Your task to perform on an android device: turn off notifications in google photos Image 0: 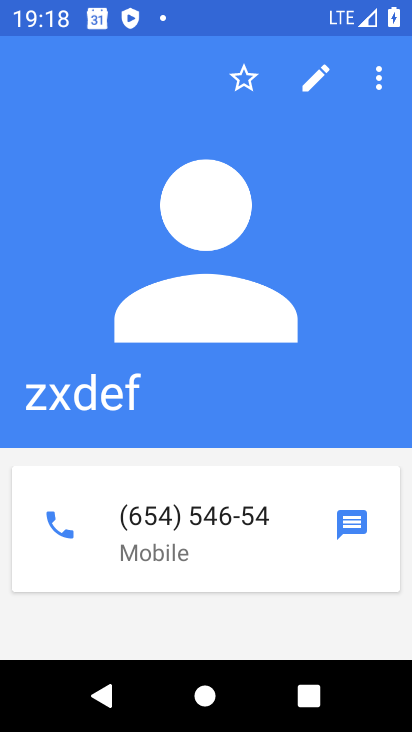
Step 0: press home button
Your task to perform on an android device: turn off notifications in google photos Image 1: 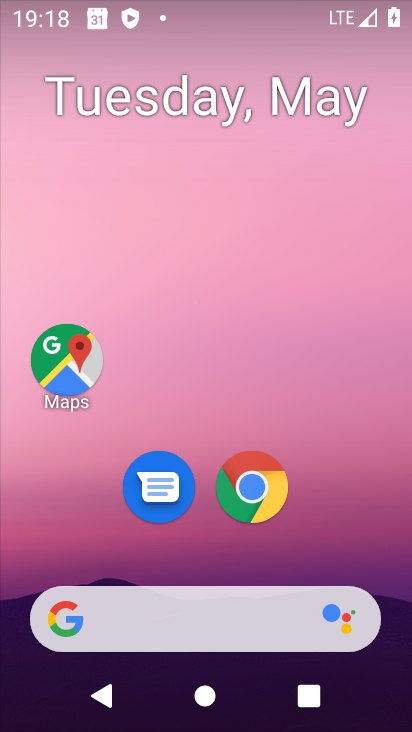
Step 1: drag from (346, 509) to (275, 144)
Your task to perform on an android device: turn off notifications in google photos Image 2: 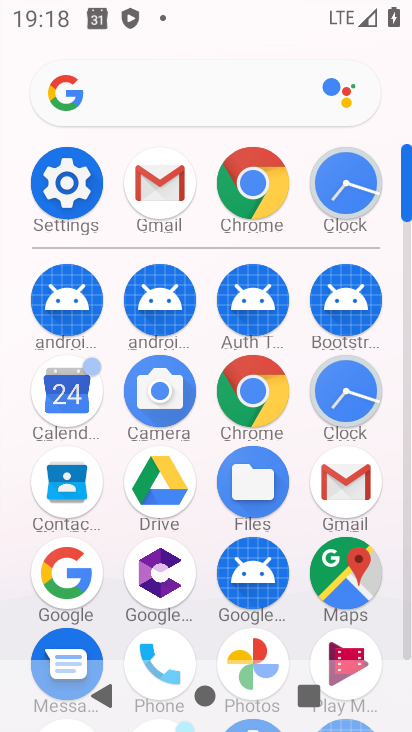
Step 2: click (251, 645)
Your task to perform on an android device: turn off notifications in google photos Image 3: 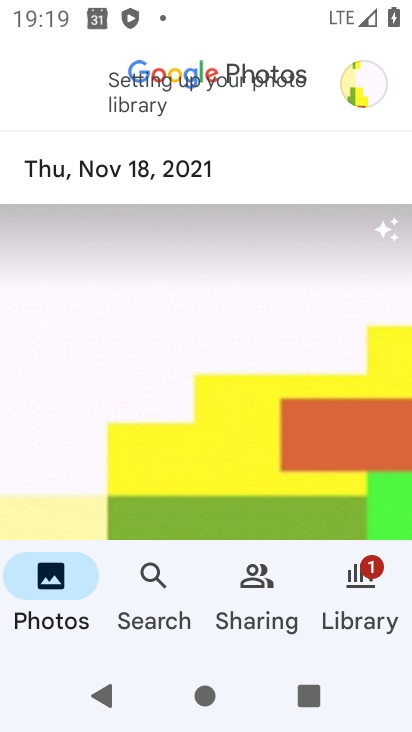
Step 3: click (363, 576)
Your task to perform on an android device: turn off notifications in google photos Image 4: 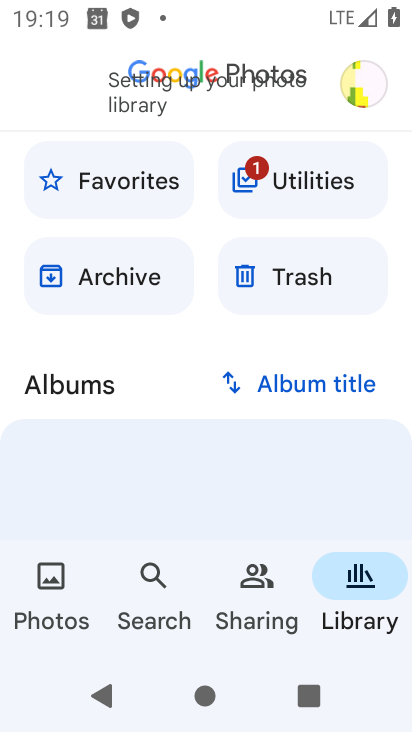
Step 4: click (363, 576)
Your task to perform on an android device: turn off notifications in google photos Image 5: 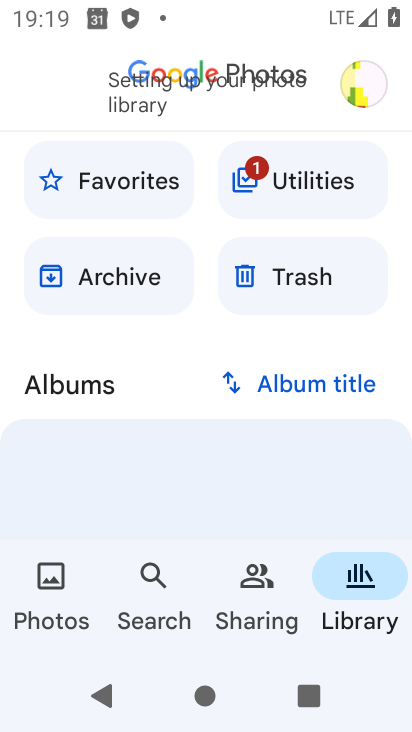
Step 5: click (52, 592)
Your task to perform on an android device: turn off notifications in google photos Image 6: 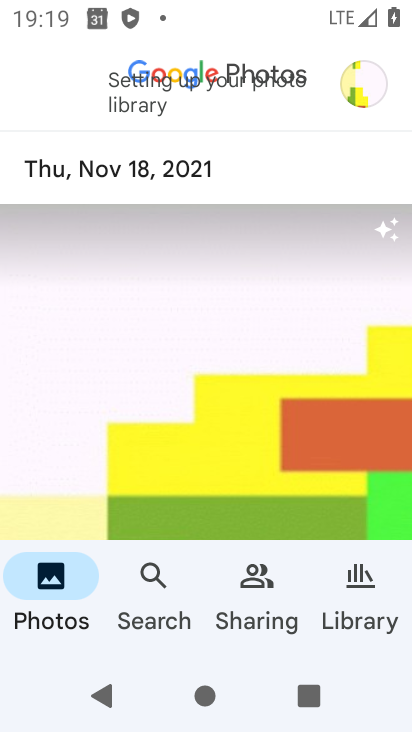
Step 6: click (355, 75)
Your task to perform on an android device: turn off notifications in google photos Image 7: 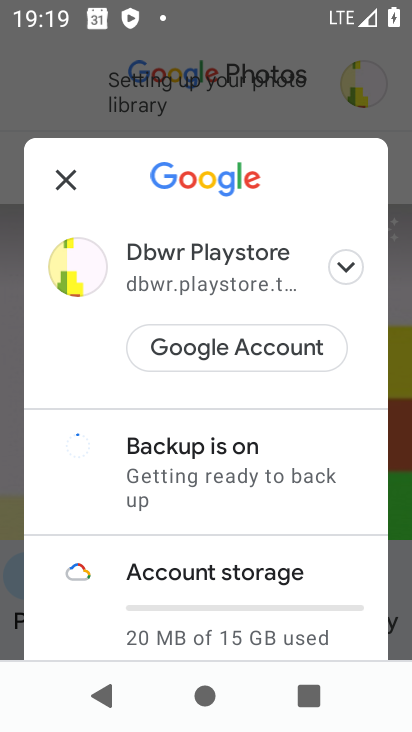
Step 7: drag from (263, 520) to (197, 254)
Your task to perform on an android device: turn off notifications in google photos Image 8: 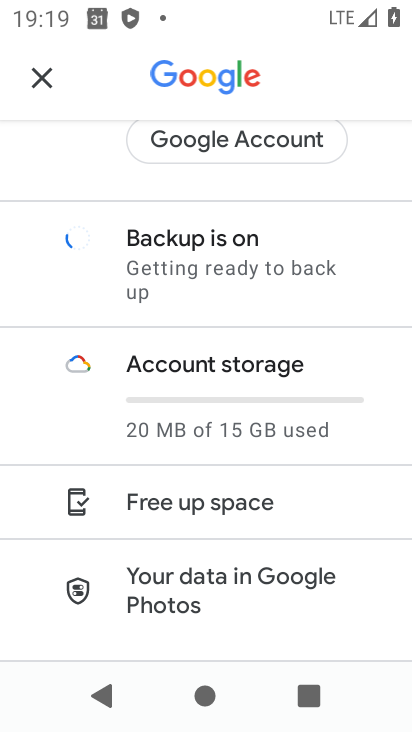
Step 8: drag from (270, 525) to (216, 278)
Your task to perform on an android device: turn off notifications in google photos Image 9: 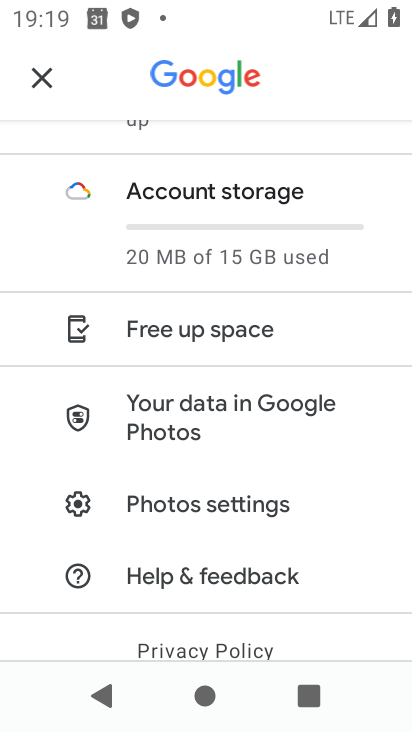
Step 9: click (236, 496)
Your task to perform on an android device: turn off notifications in google photos Image 10: 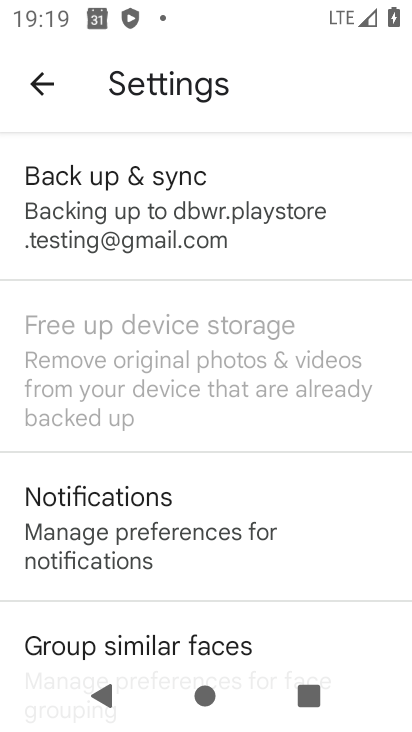
Step 10: click (141, 511)
Your task to perform on an android device: turn off notifications in google photos Image 11: 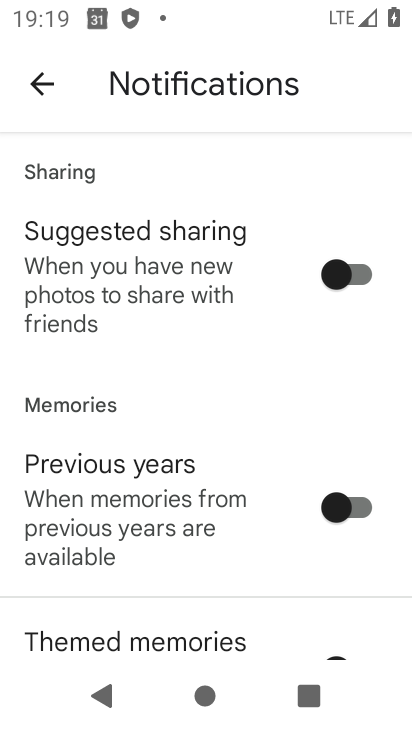
Step 11: drag from (180, 430) to (87, 132)
Your task to perform on an android device: turn off notifications in google photos Image 12: 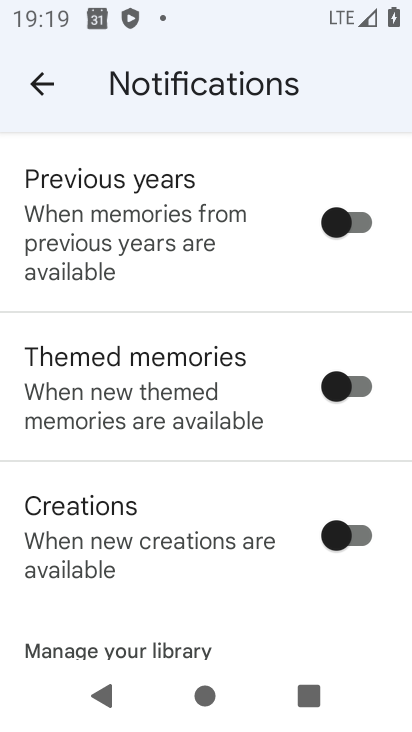
Step 12: drag from (193, 604) to (158, 283)
Your task to perform on an android device: turn off notifications in google photos Image 13: 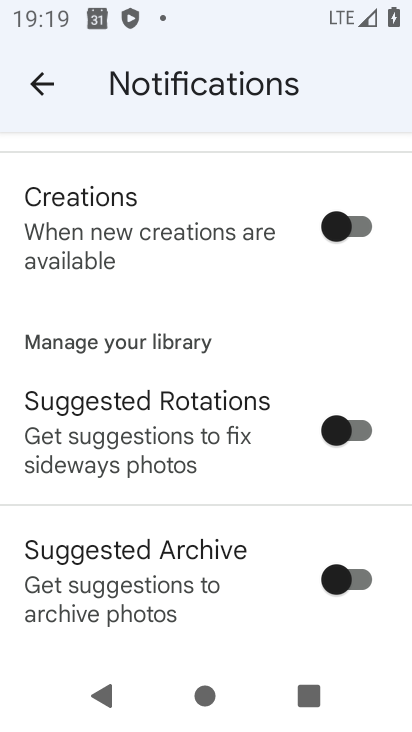
Step 13: drag from (177, 425) to (128, 129)
Your task to perform on an android device: turn off notifications in google photos Image 14: 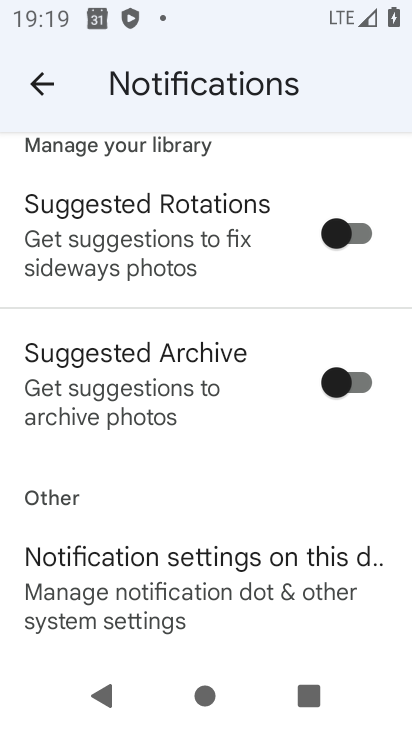
Step 14: click (164, 595)
Your task to perform on an android device: turn off notifications in google photos Image 15: 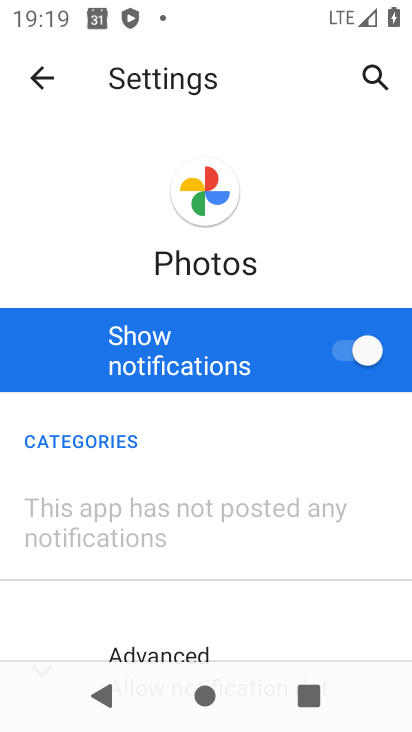
Step 15: click (364, 347)
Your task to perform on an android device: turn off notifications in google photos Image 16: 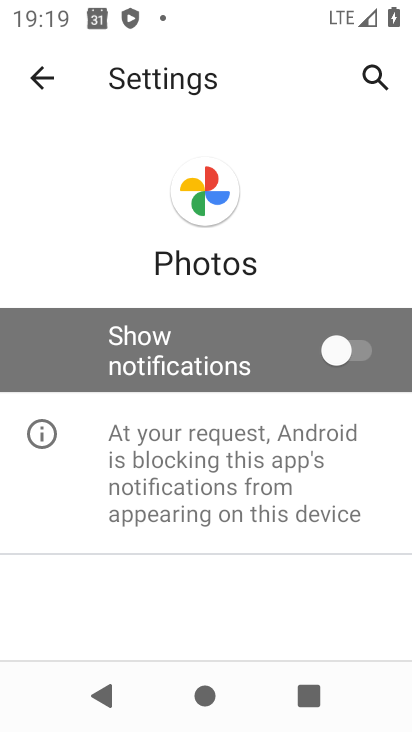
Step 16: task complete